Your task to perform on an android device: Open Google Image 0: 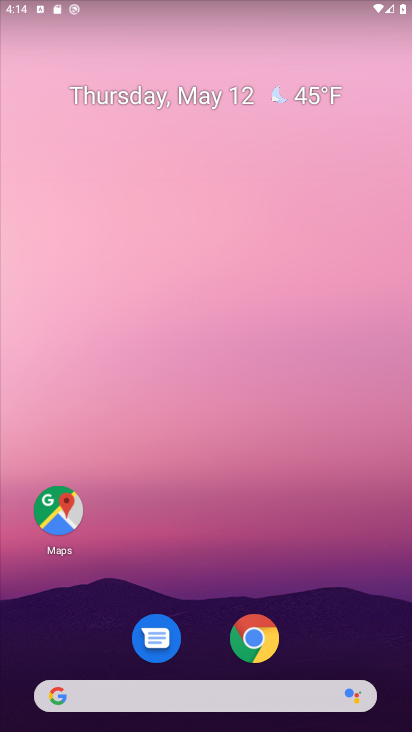
Step 0: drag from (356, 606) to (282, 125)
Your task to perform on an android device: Open Google Image 1: 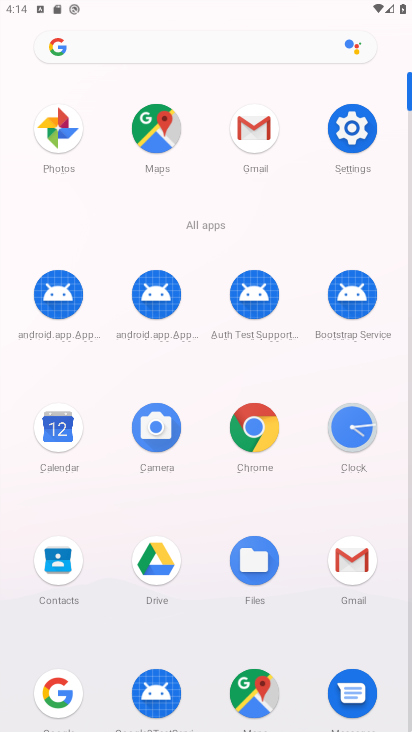
Step 1: click (64, 692)
Your task to perform on an android device: Open Google Image 2: 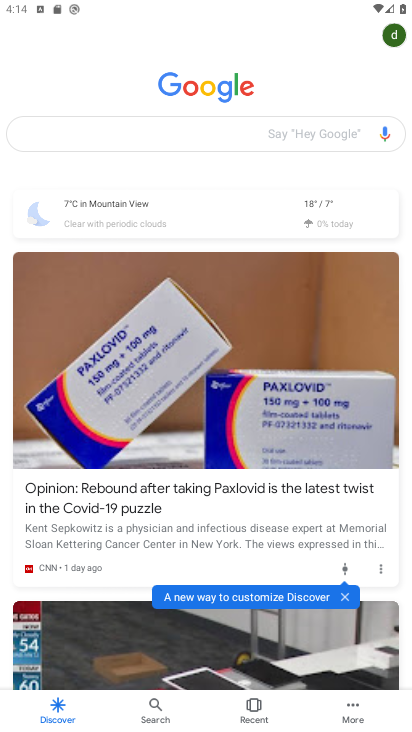
Step 2: task complete